Your task to perform on an android device: turn on bluetooth scan Image 0: 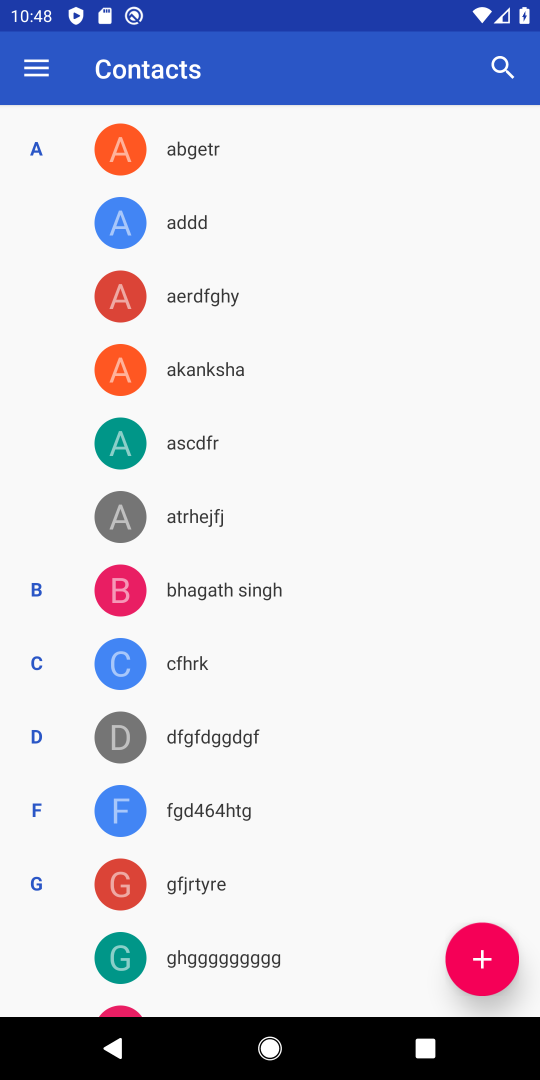
Step 0: press home button
Your task to perform on an android device: turn on bluetooth scan Image 1: 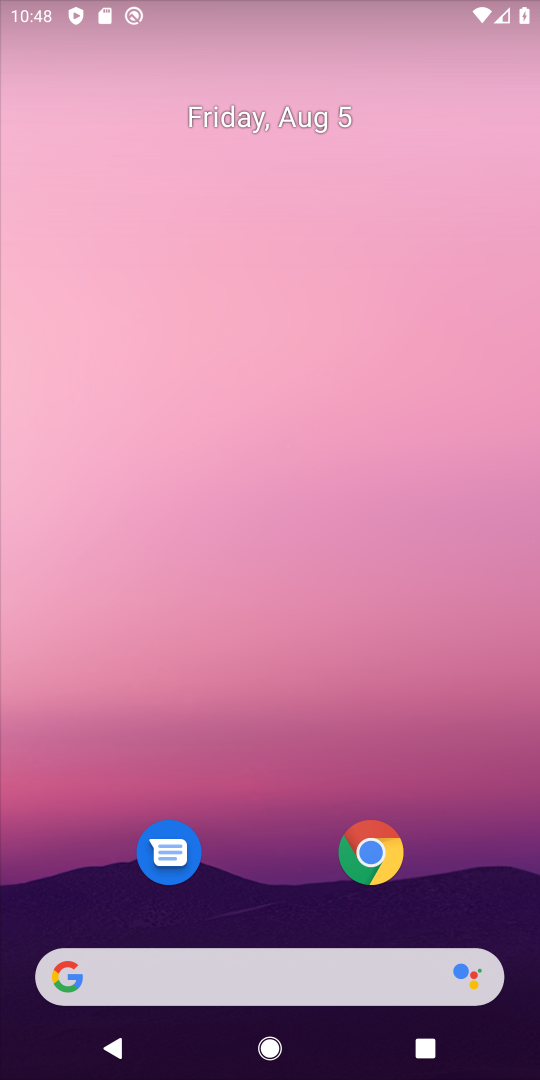
Step 1: drag from (224, 951) to (231, 377)
Your task to perform on an android device: turn on bluetooth scan Image 2: 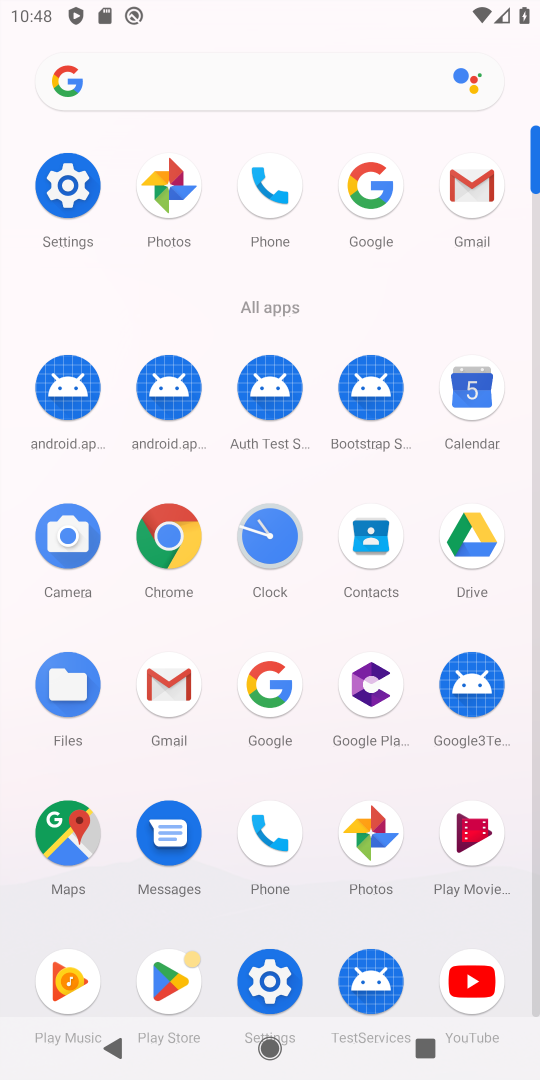
Step 2: click (266, 971)
Your task to perform on an android device: turn on bluetooth scan Image 3: 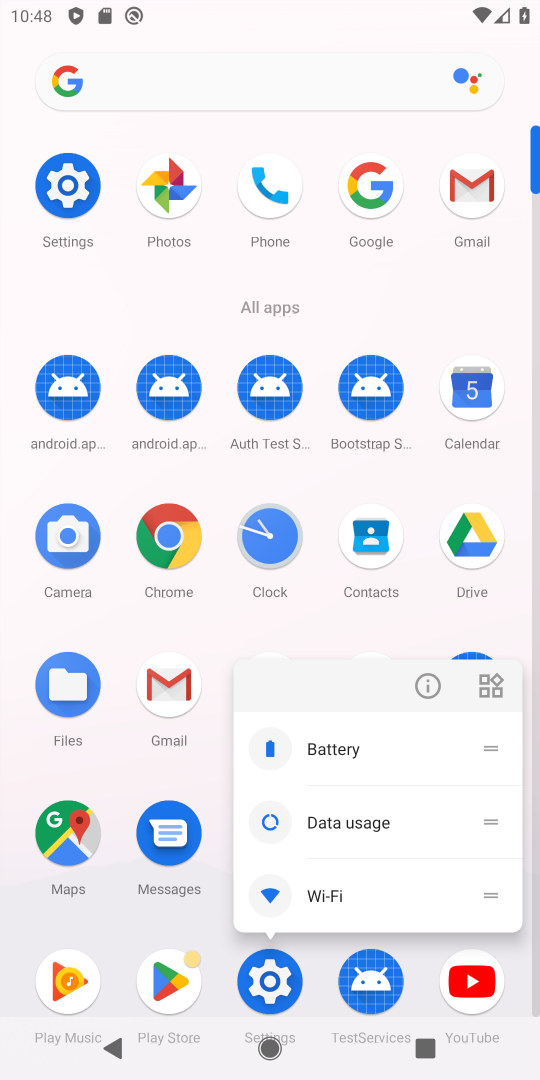
Step 3: click (266, 972)
Your task to perform on an android device: turn on bluetooth scan Image 4: 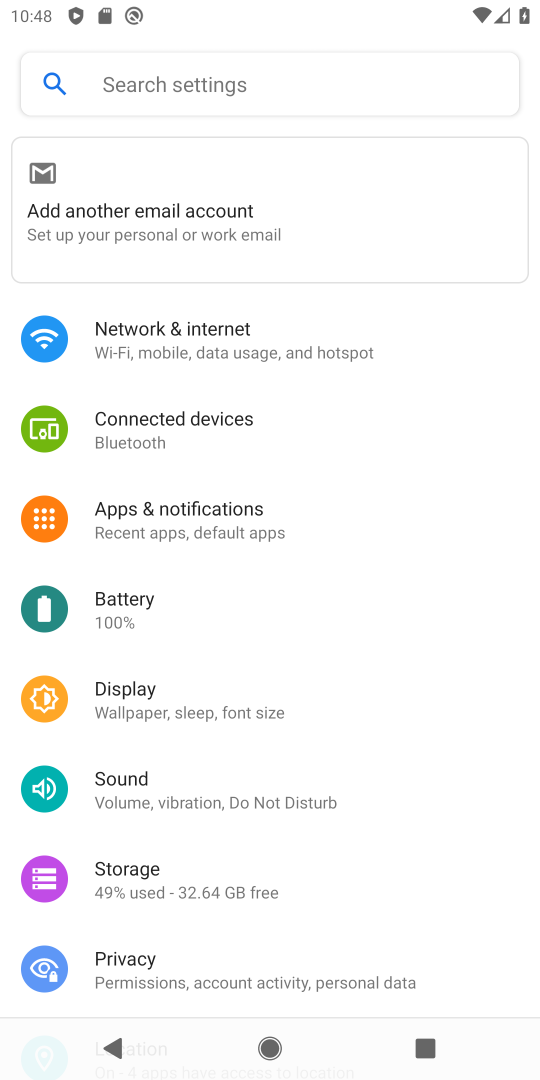
Step 4: drag from (189, 962) to (161, 464)
Your task to perform on an android device: turn on bluetooth scan Image 5: 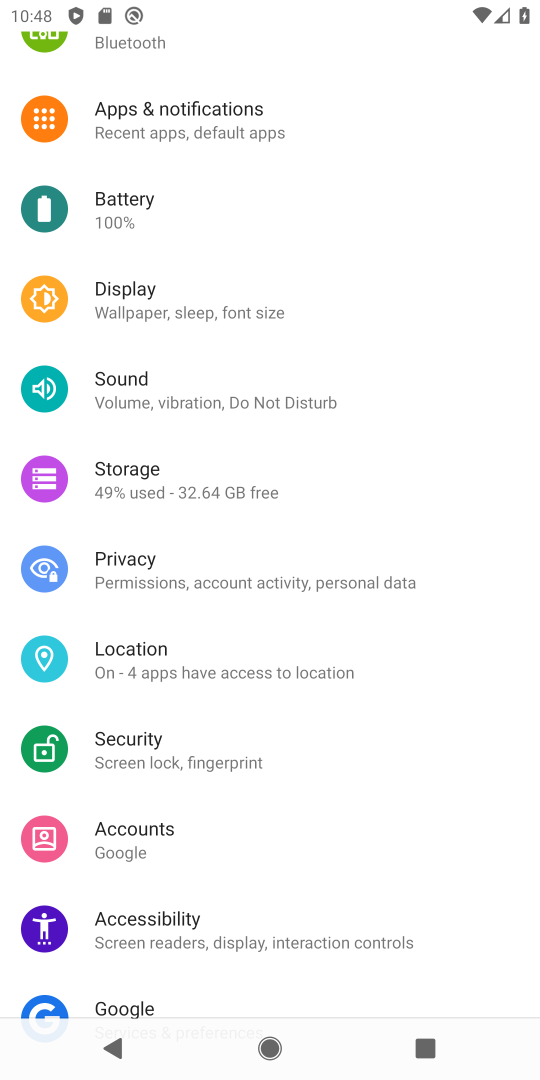
Step 5: click (131, 768)
Your task to perform on an android device: turn on bluetooth scan Image 6: 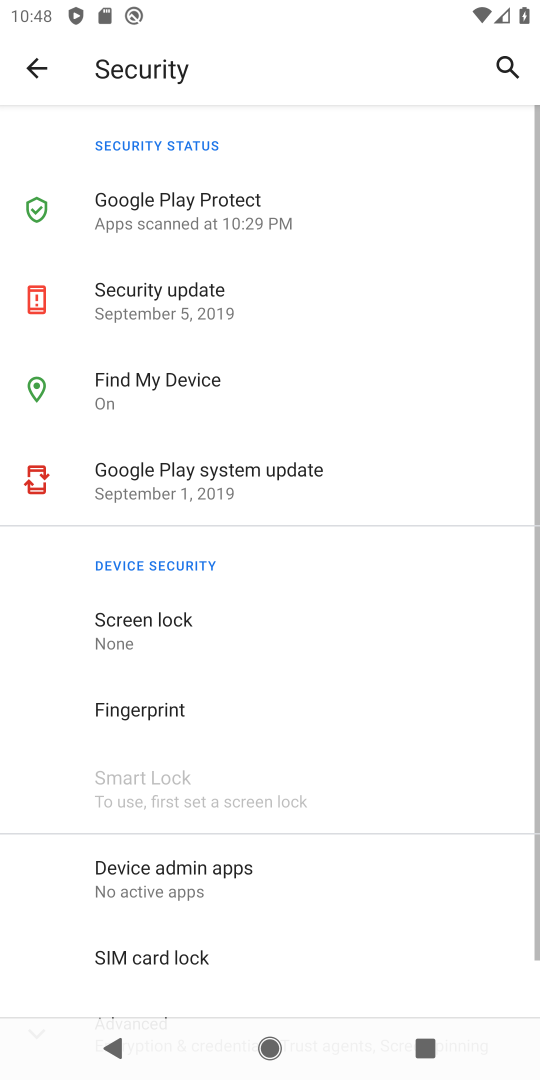
Step 6: click (25, 74)
Your task to perform on an android device: turn on bluetooth scan Image 7: 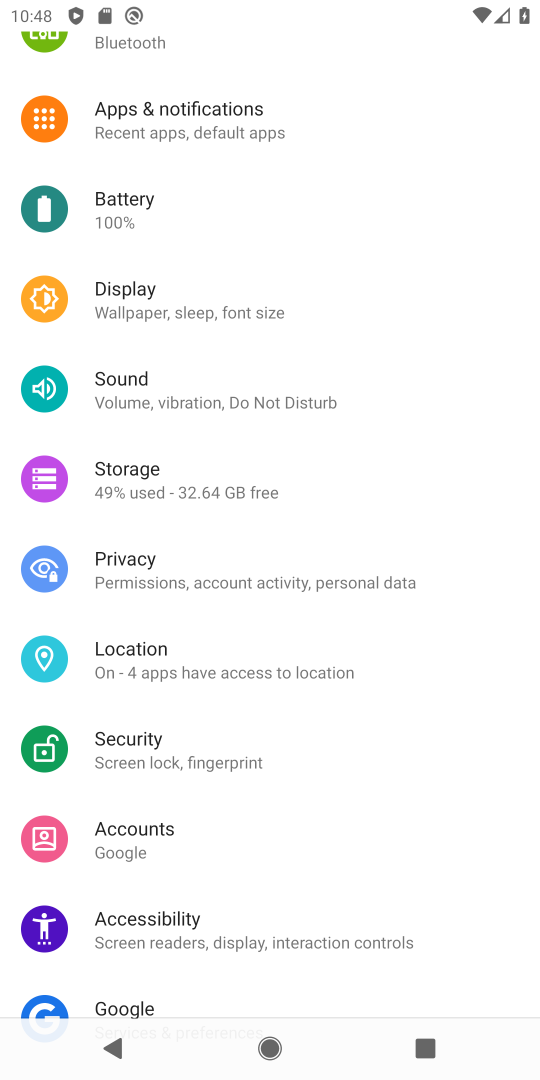
Step 7: click (139, 644)
Your task to perform on an android device: turn on bluetooth scan Image 8: 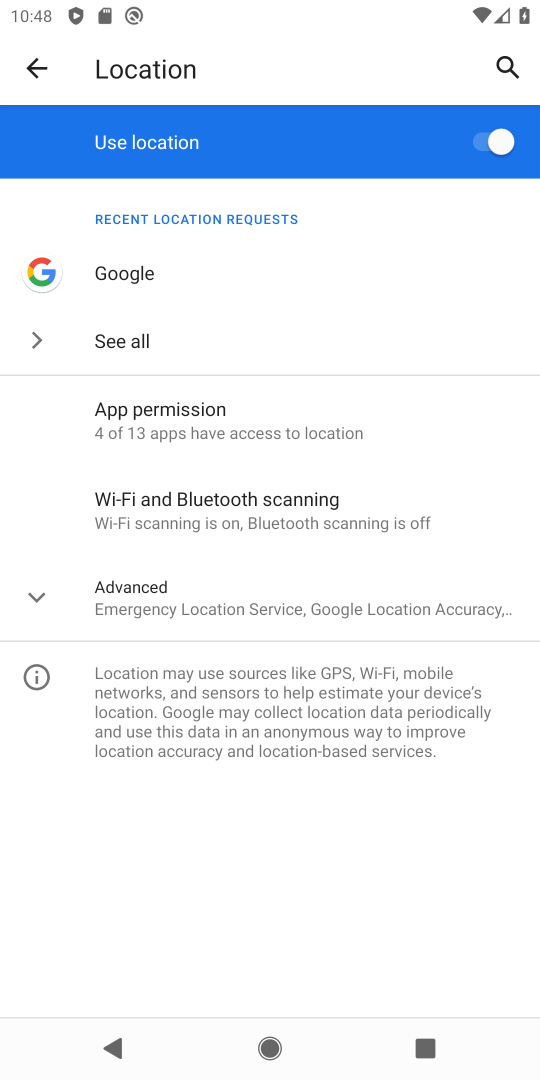
Step 8: click (172, 606)
Your task to perform on an android device: turn on bluetooth scan Image 9: 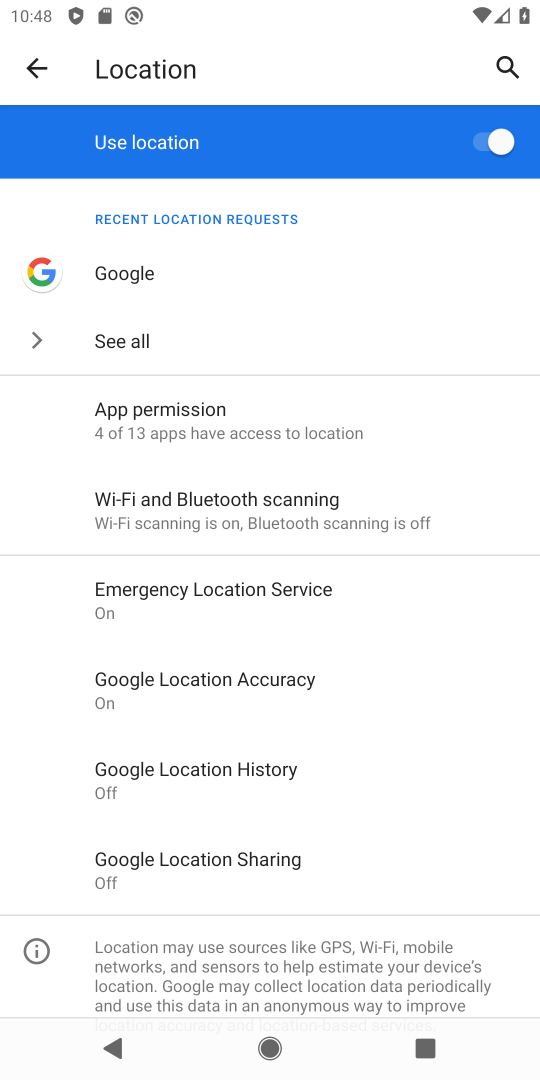
Step 9: click (164, 511)
Your task to perform on an android device: turn on bluetooth scan Image 10: 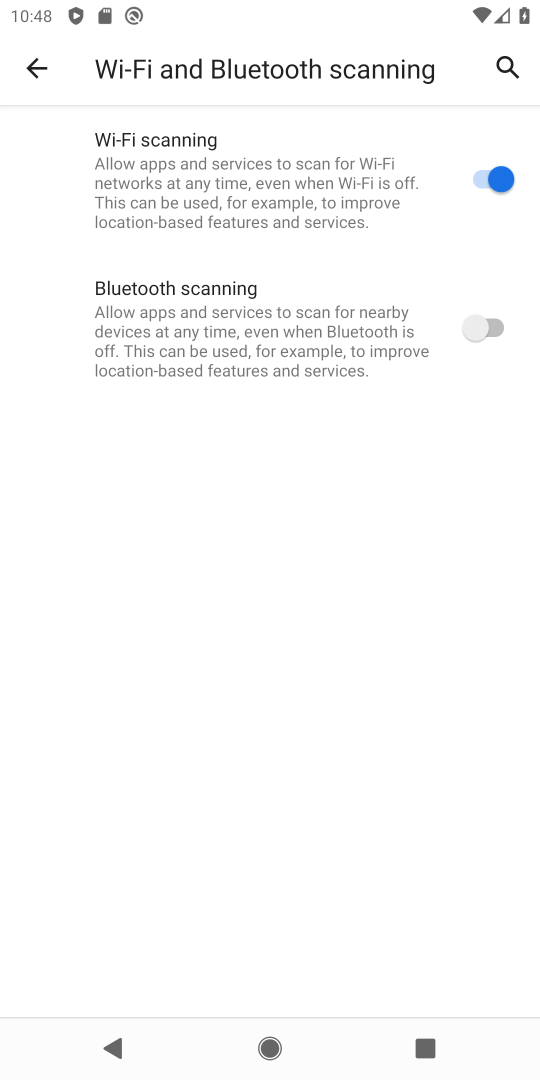
Step 10: click (487, 324)
Your task to perform on an android device: turn on bluetooth scan Image 11: 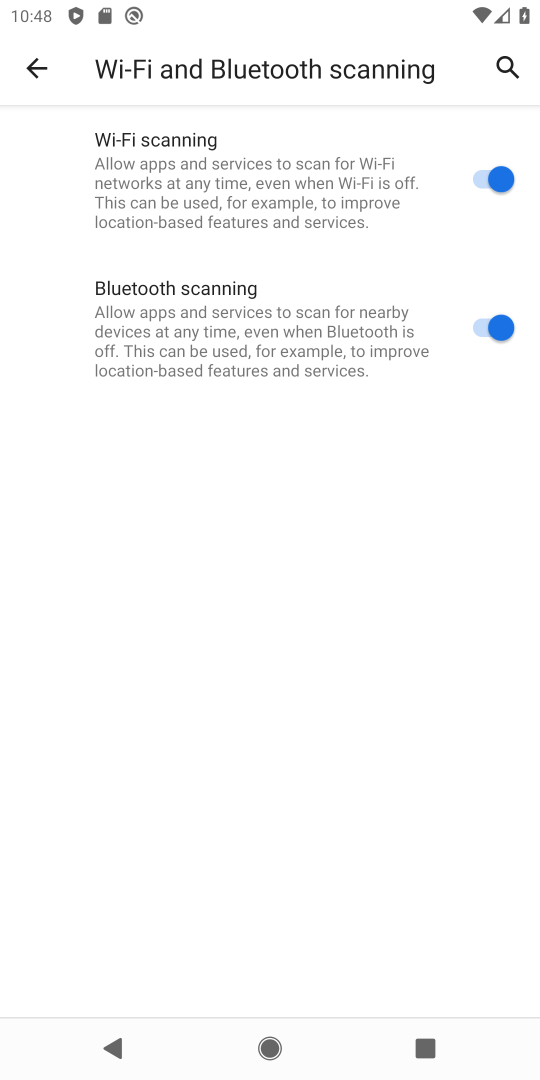
Step 11: task complete